Your task to perform on an android device: Open sound settings Image 0: 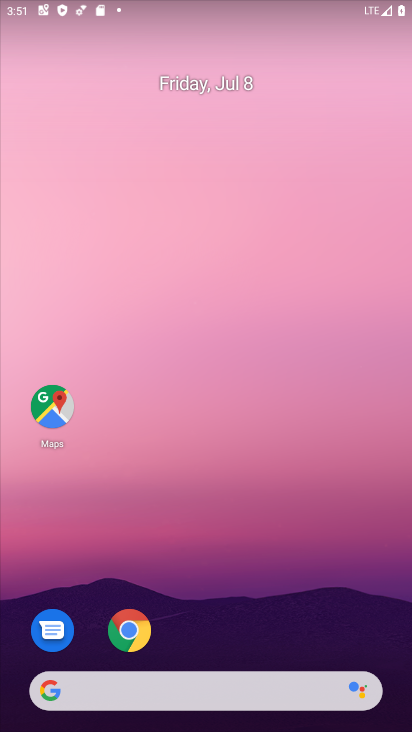
Step 0: drag from (246, 653) to (267, 123)
Your task to perform on an android device: Open sound settings Image 1: 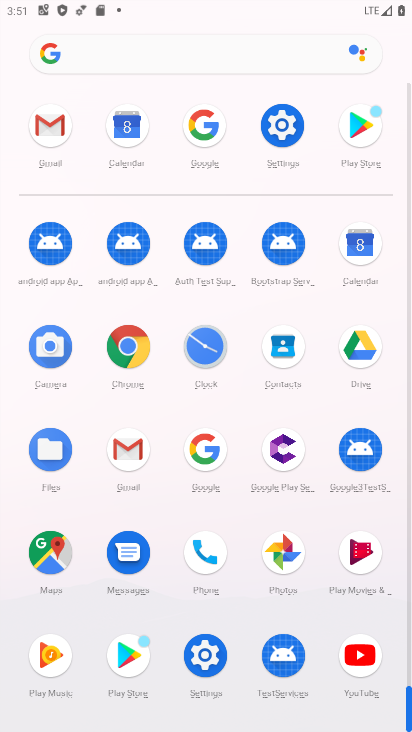
Step 1: click (282, 121)
Your task to perform on an android device: Open sound settings Image 2: 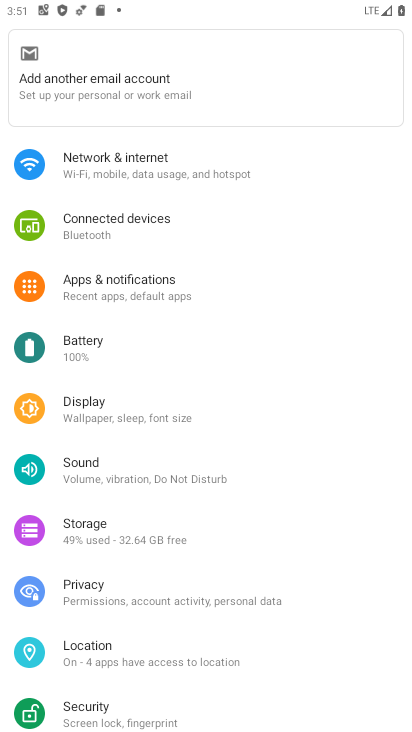
Step 2: click (127, 474)
Your task to perform on an android device: Open sound settings Image 3: 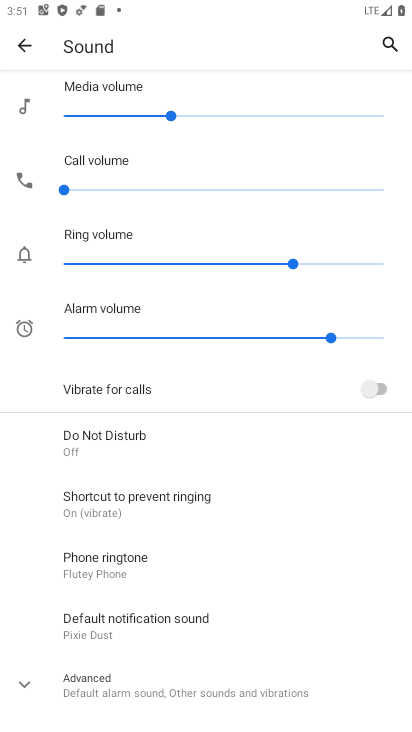
Step 3: task complete